Your task to perform on an android device: change the clock display to digital Image 0: 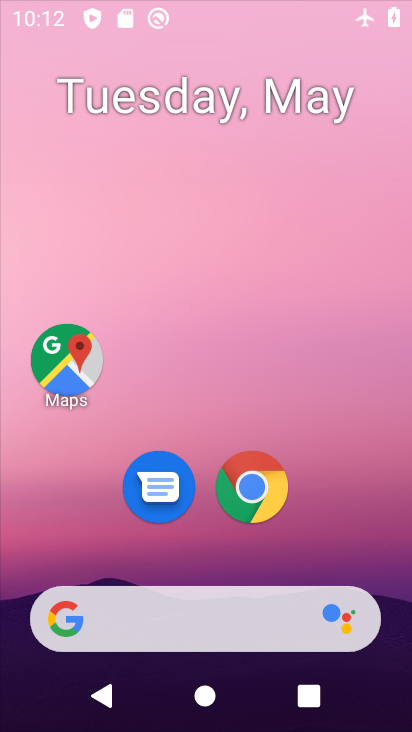
Step 0: drag from (219, 341) to (309, 62)
Your task to perform on an android device: change the clock display to digital Image 1: 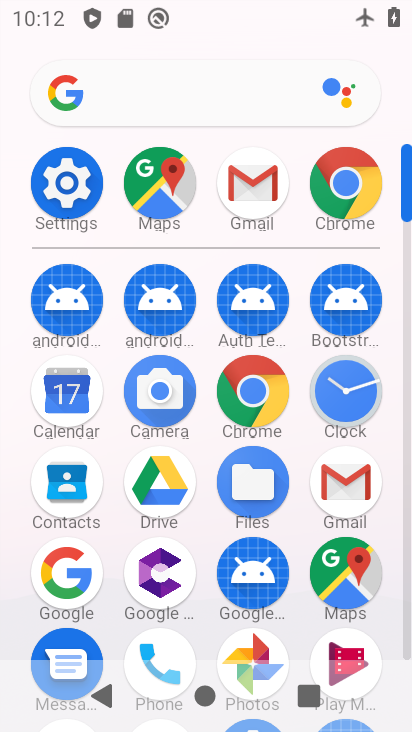
Step 1: click (345, 388)
Your task to perform on an android device: change the clock display to digital Image 2: 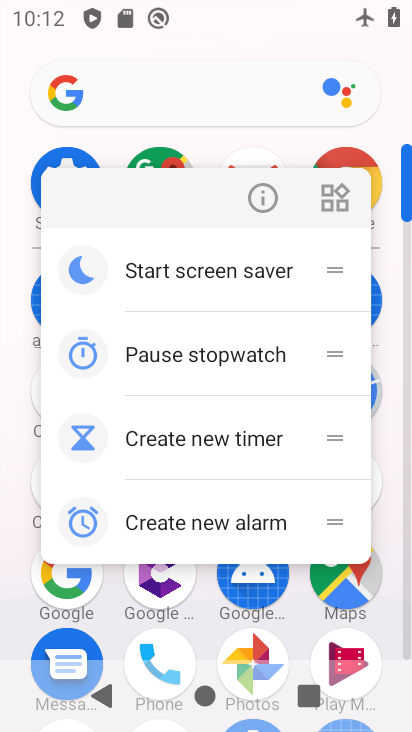
Step 2: click (270, 196)
Your task to perform on an android device: change the clock display to digital Image 3: 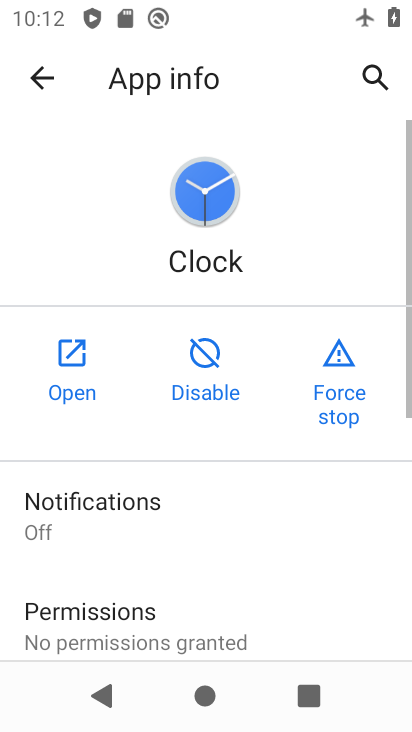
Step 3: click (98, 367)
Your task to perform on an android device: change the clock display to digital Image 4: 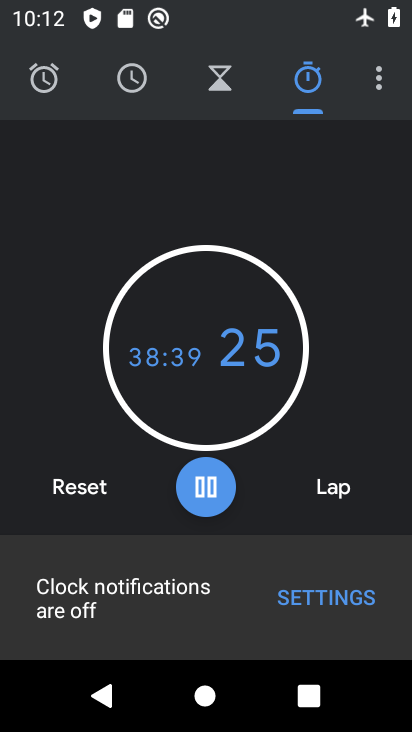
Step 4: click (380, 101)
Your task to perform on an android device: change the clock display to digital Image 5: 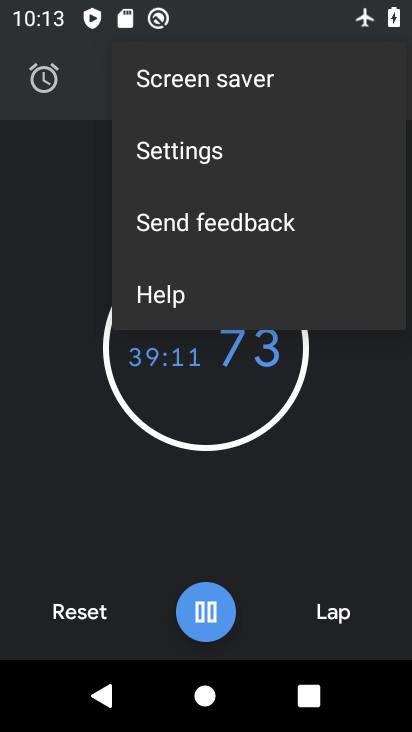
Step 5: click (250, 127)
Your task to perform on an android device: change the clock display to digital Image 6: 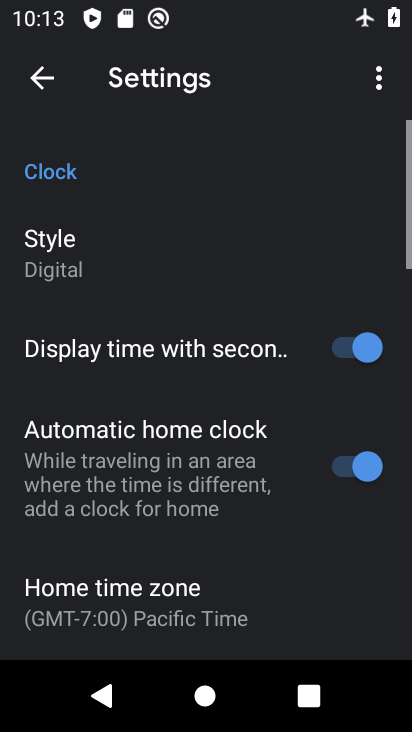
Step 6: click (58, 226)
Your task to perform on an android device: change the clock display to digital Image 7: 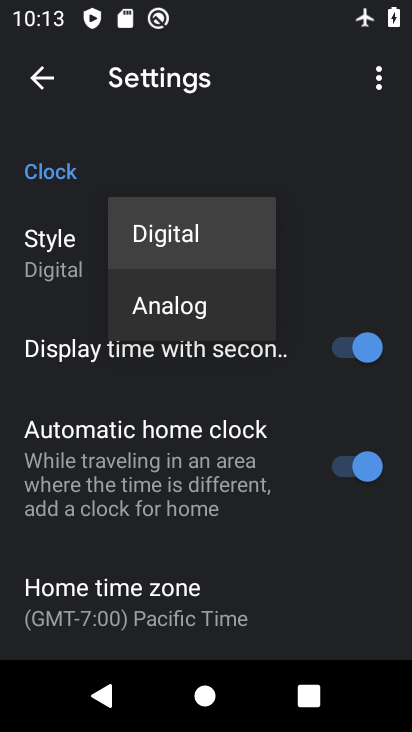
Step 7: click (157, 255)
Your task to perform on an android device: change the clock display to digital Image 8: 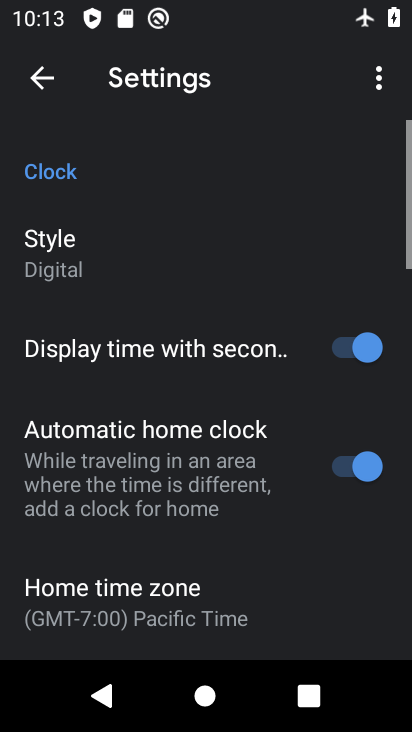
Step 8: task complete